Your task to perform on an android device: see creations saved in the google photos Image 0: 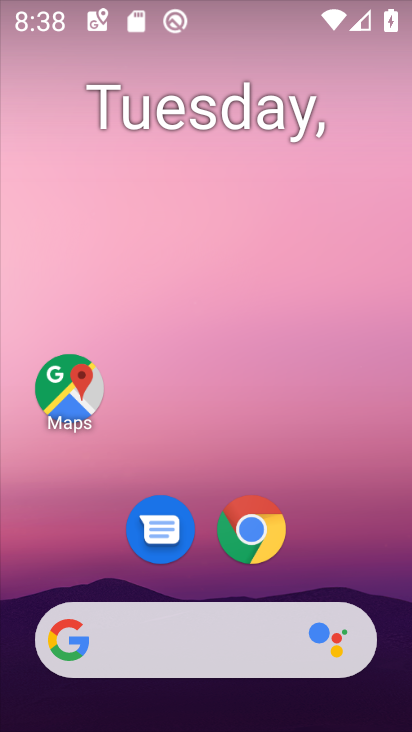
Step 0: drag from (197, 565) to (215, 54)
Your task to perform on an android device: see creations saved in the google photos Image 1: 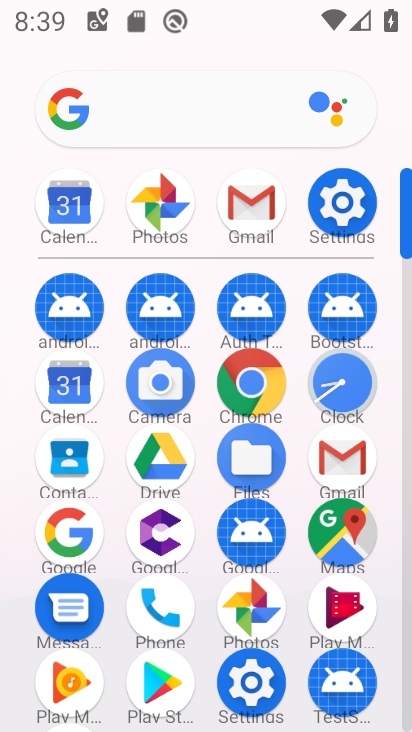
Step 1: click (250, 615)
Your task to perform on an android device: see creations saved in the google photos Image 2: 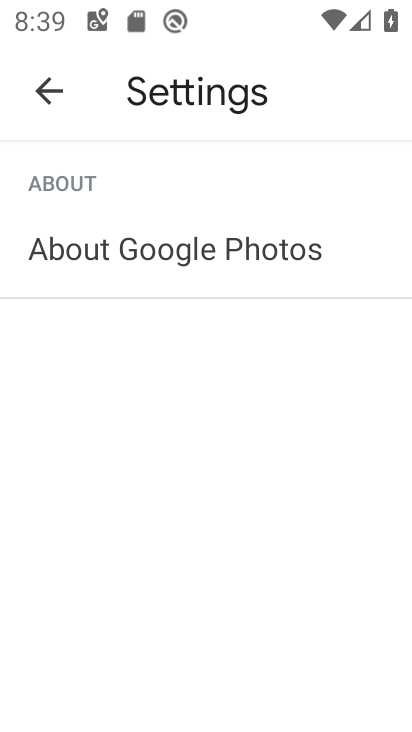
Step 2: click (2, 77)
Your task to perform on an android device: see creations saved in the google photos Image 3: 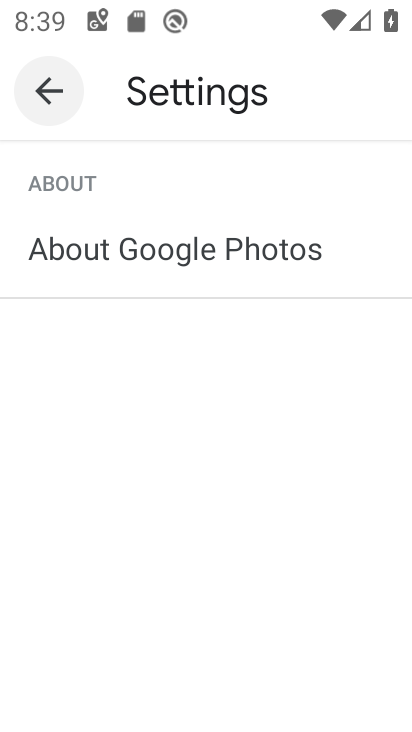
Step 3: click (27, 79)
Your task to perform on an android device: see creations saved in the google photos Image 4: 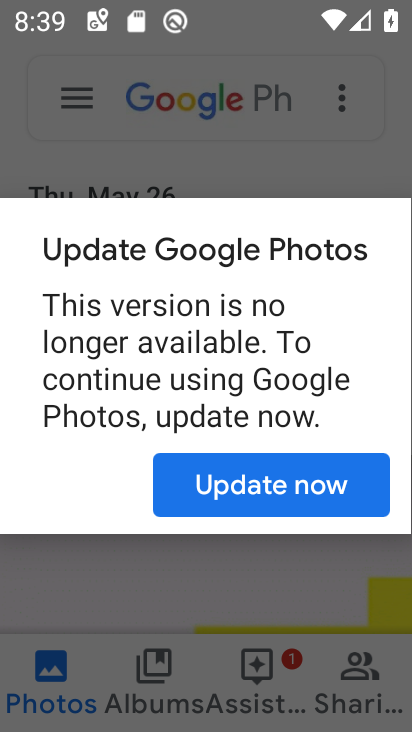
Step 4: click (243, 476)
Your task to perform on an android device: see creations saved in the google photos Image 5: 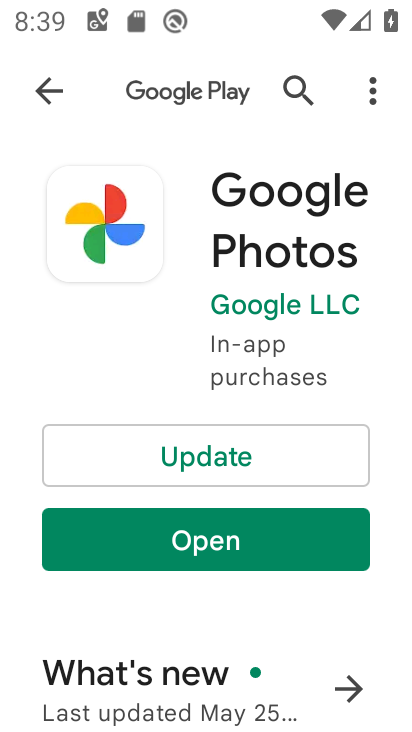
Step 5: click (184, 543)
Your task to perform on an android device: see creations saved in the google photos Image 6: 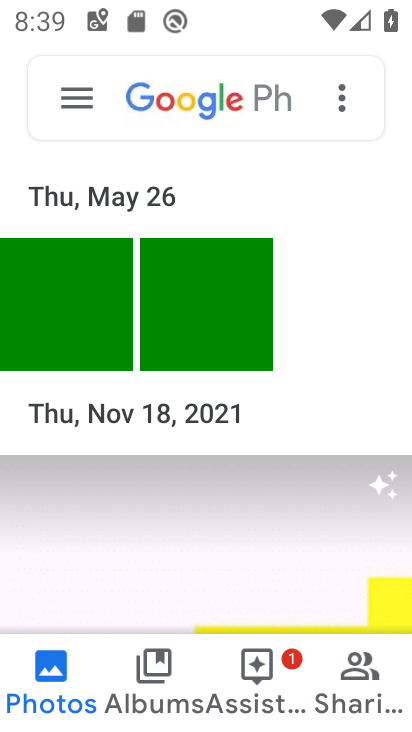
Step 6: click (67, 101)
Your task to perform on an android device: see creations saved in the google photos Image 7: 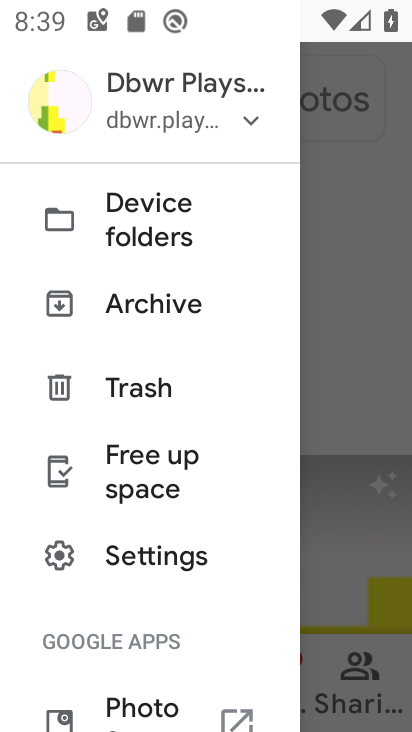
Step 7: click (172, 286)
Your task to perform on an android device: see creations saved in the google photos Image 8: 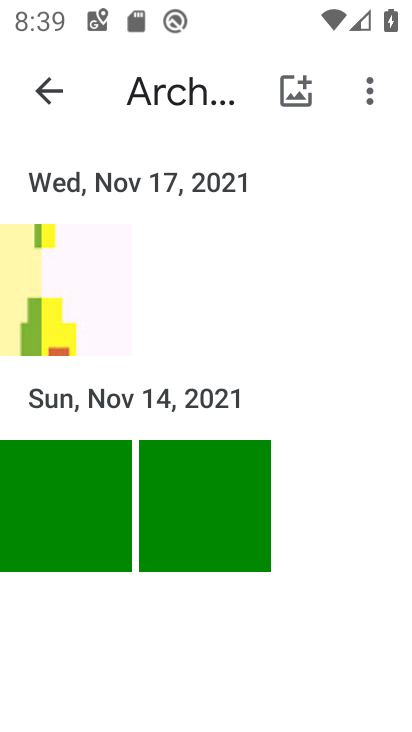
Step 8: task complete